Your task to perform on an android device: Search for logitech g pro on target, select the first entry, and add it to the cart. Image 0: 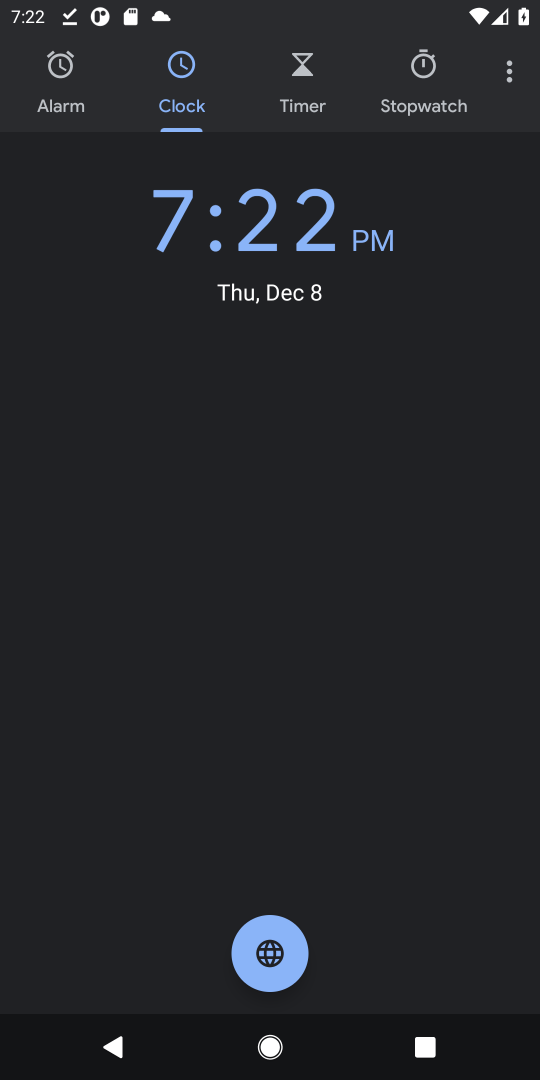
Step 0: press home button
Your task to perform on an android device: Search for logitech g pro on target, select the first entry, and add it to the cart. Image 1: 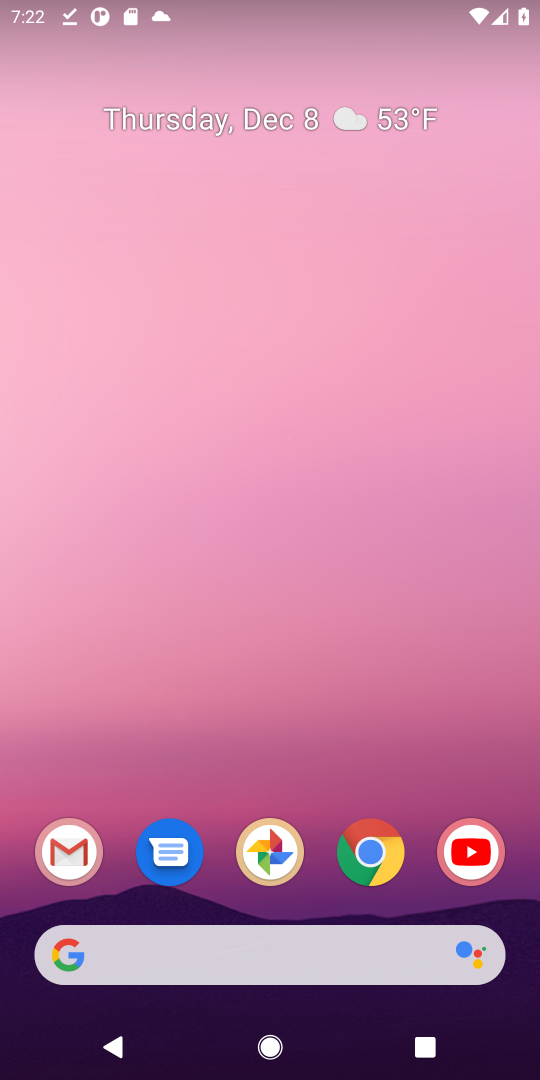
Step 1: click (172, 972)
Your task to perform on an android device: Search for logitech g pro on target, select the first entry, and add it to the cart. Image 2: 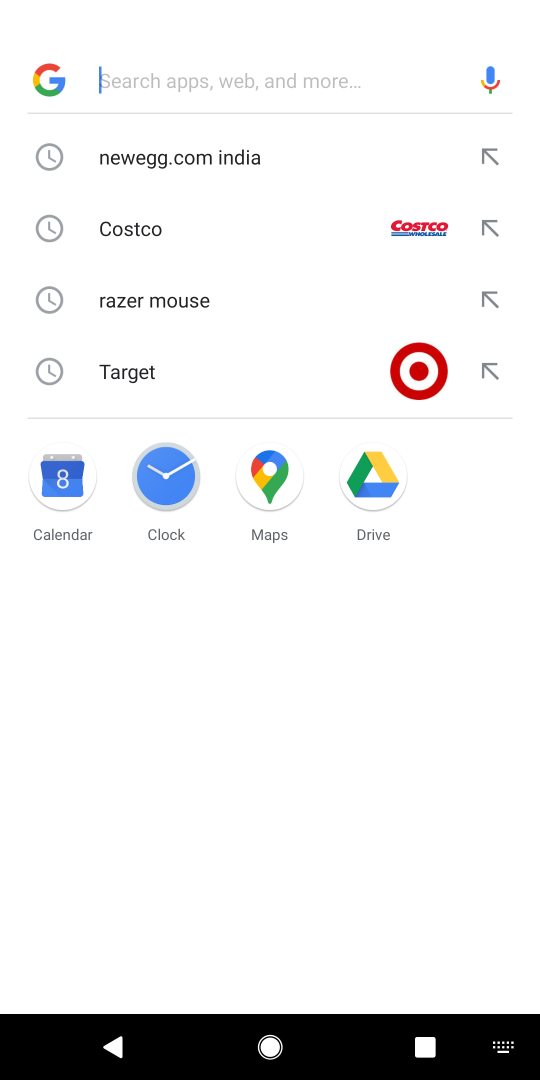
Step 2: click (193, 369)
Your task to perform on an android device: Search for logitech g pro on target, select the first entry, and add it to the cart. Image 3: 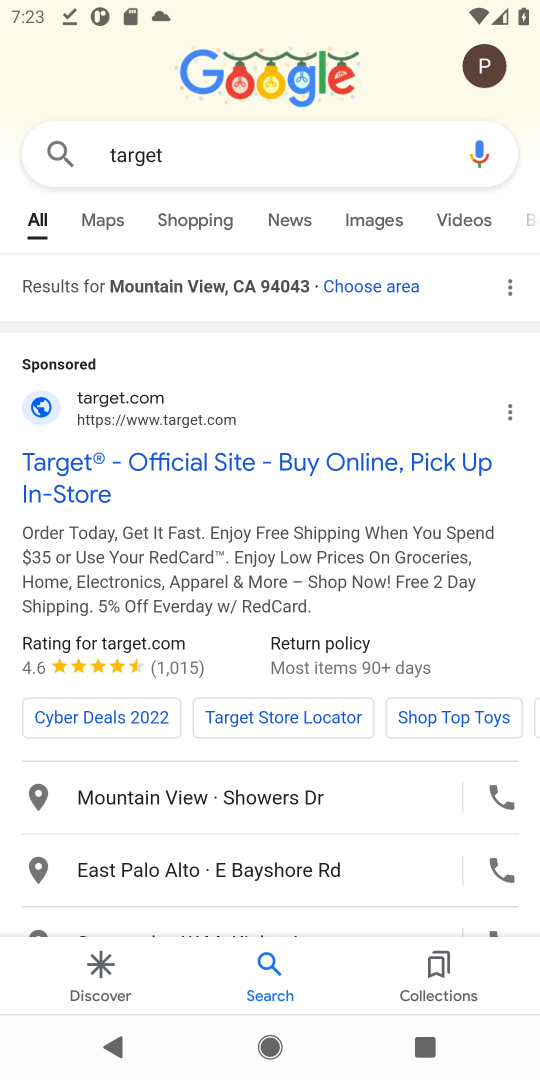
Step 3: click (192, 481)
Your task to perform on an android device: Search for logitech g pro on target, select the first entry, and add it to the cart. Image 4: 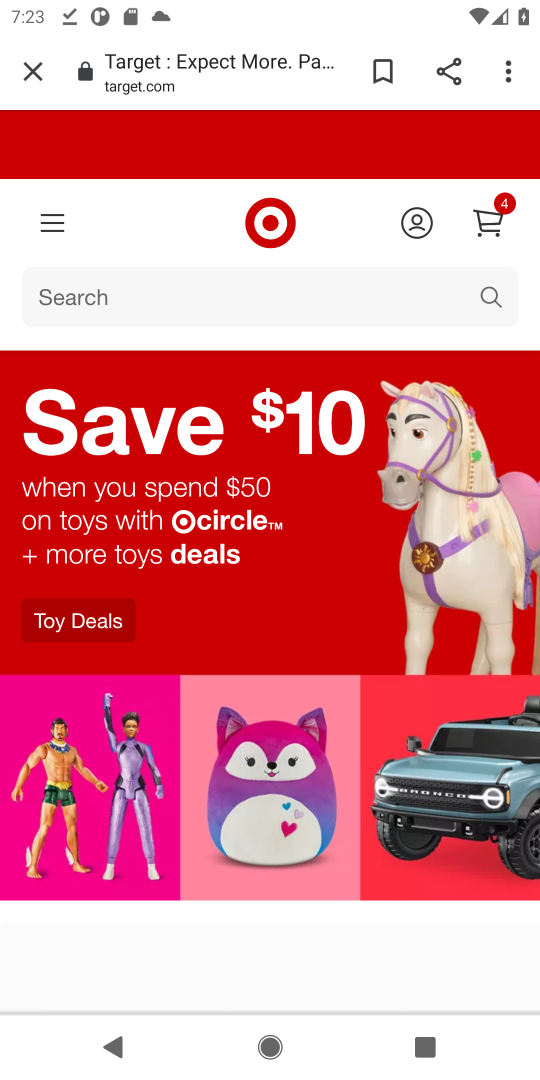
Step 4: click (274, 288)
Your task to perform on an android device: Search for logitech g pro on target, select the first entry, and add it to the cart. Image 5: 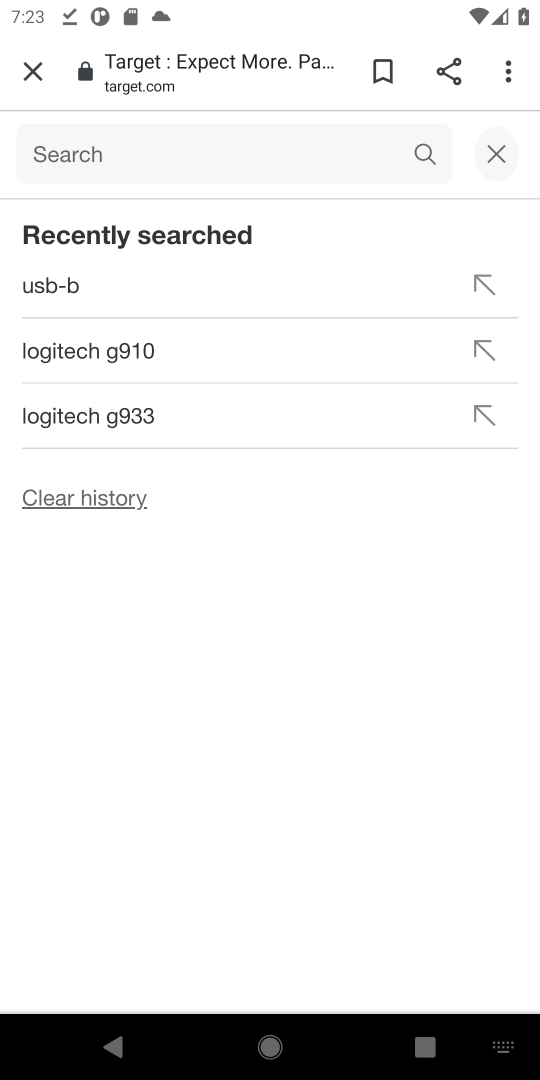
Step 5: type "logitech g pro"
Your task to perform on an android device: Search for logitech g pro on target, select the first entry, and add it to the cart. Image 6: 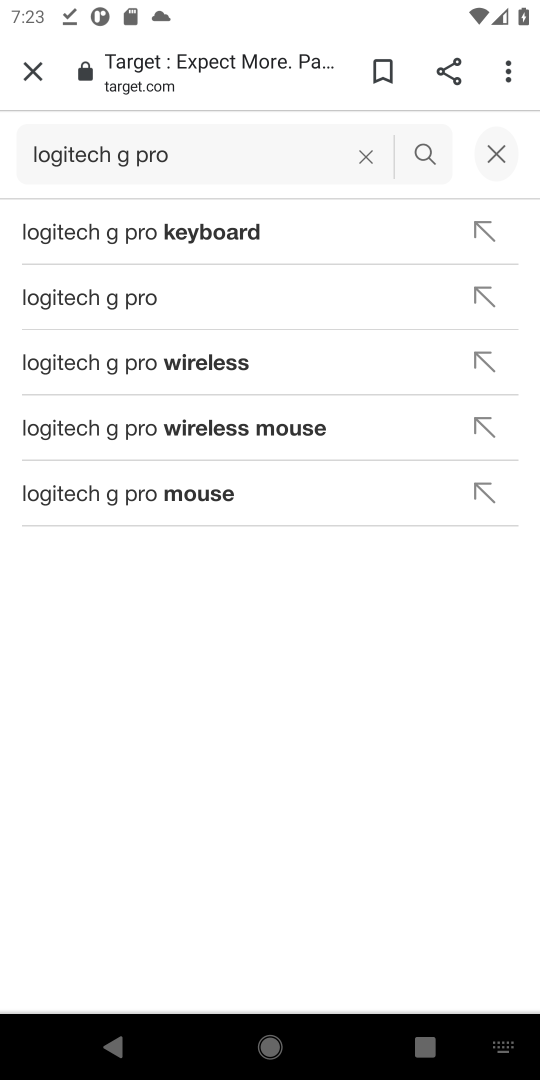
Step 6: click (348, 315)
Your task to perform on an android device: Search for logitech g pro on target, select the first entry, and add it to the cart. Image 7: 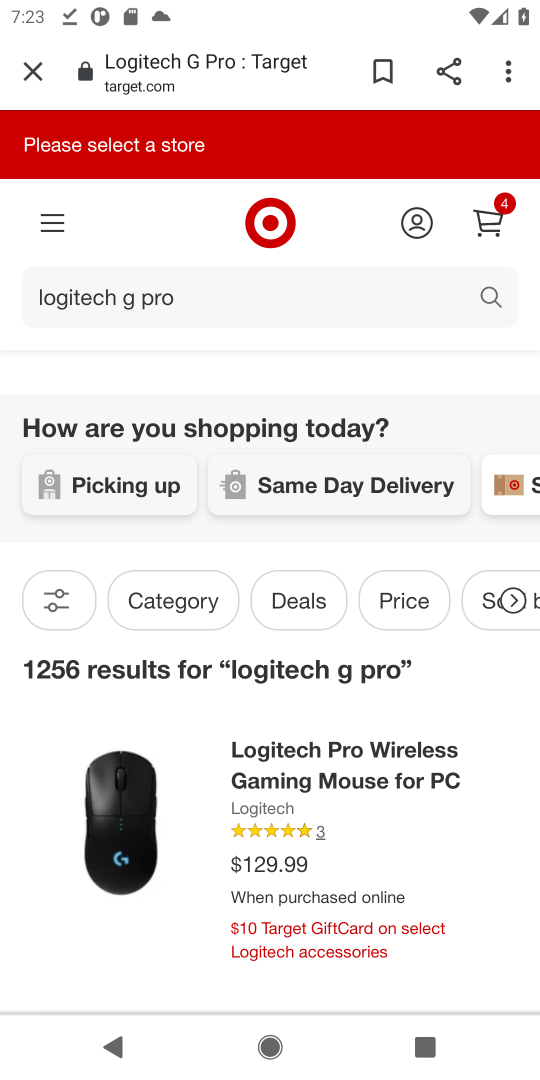
Step 7: click (378, 771)
Your task to perform on an android device: Search for logitech g pro on target, select the first entry, and add it to the cart. Image 8: 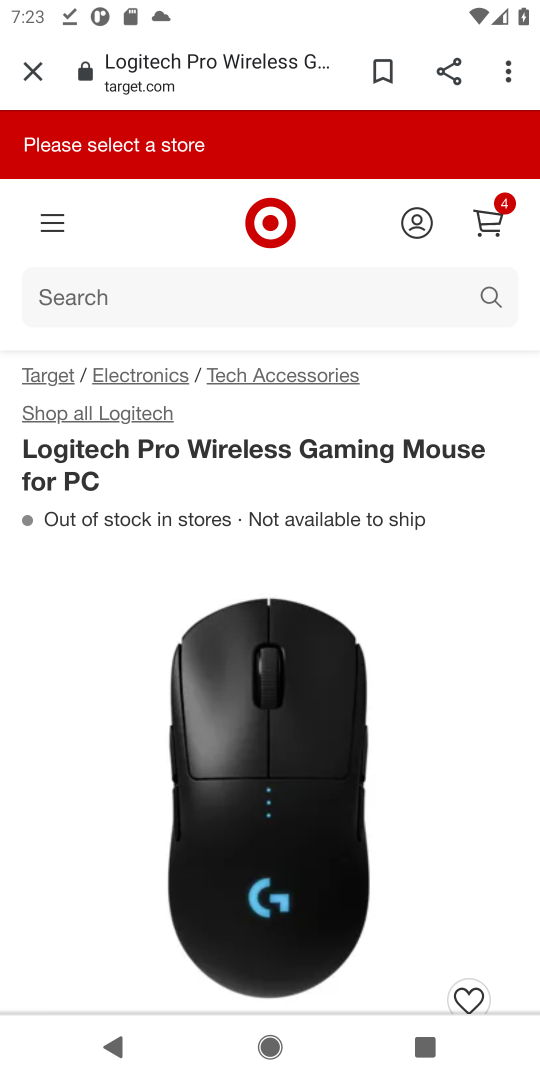
Step 8: drag from (378, 771) to (384, 279)
Your task to perform on an android device: Search for logitech g pro on target, select the first entry, and add it to the cart. Image 9: 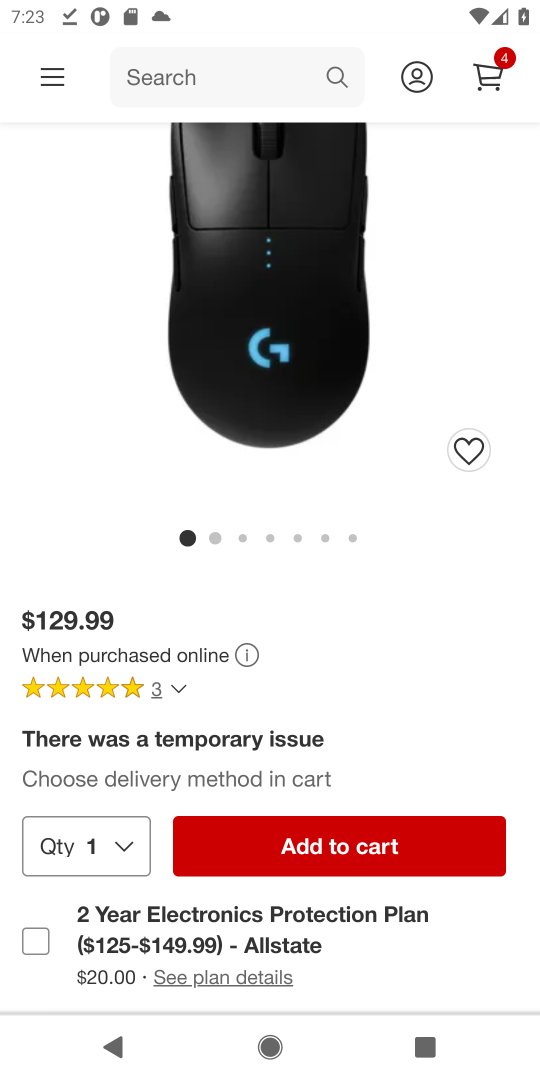
Step 9: click (398, 868)
Your task to perform on an android device: Search for logitech g pro on target, select the first entry, and add it to the cart. Image 10: 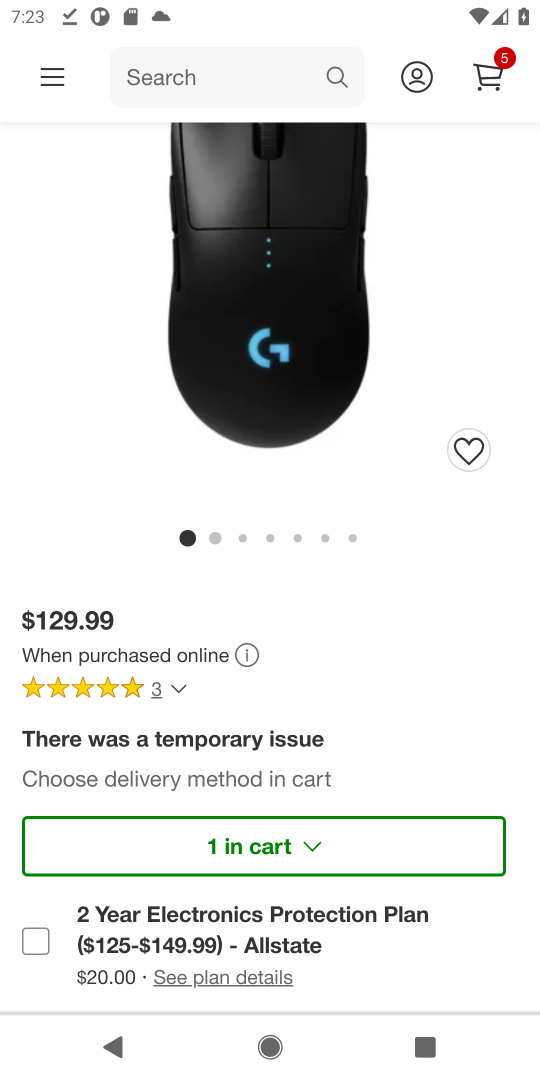
Step 10: task complete